Your task to perform on an android device: change notifications settings Image 0: 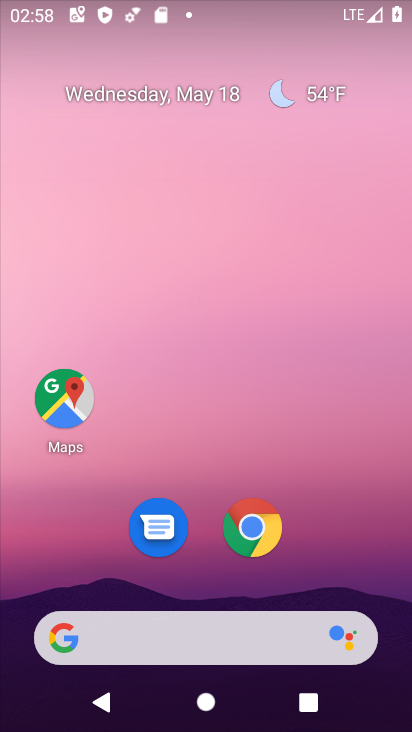
Step 0: drag from (206, 615) to (370, 59)
Your task to perform on an android device: change notifications settings Image 1: 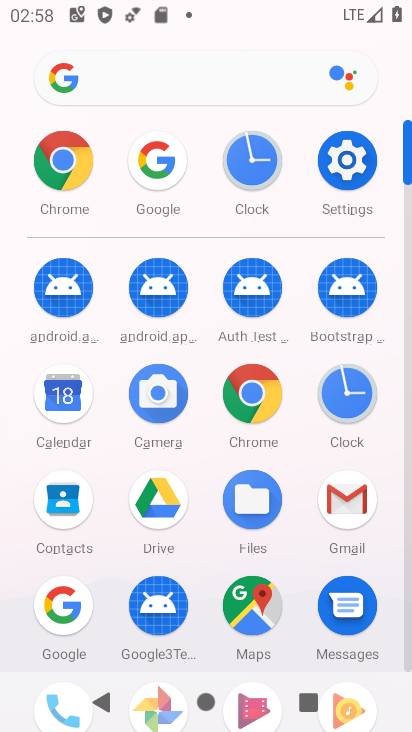
Step 1: click (338, 176)
Your task to perform on an android device: change notifications settings Image 2: 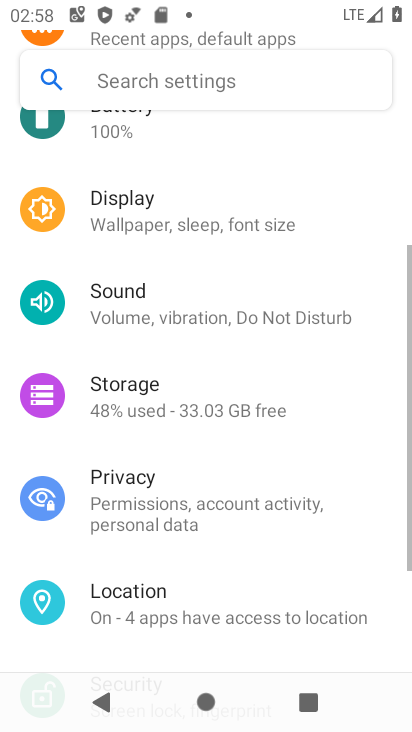
Step 2: drag from (319, 197) to (268, 654)
Your task to perform on an android device: change notifications settings Image 3: 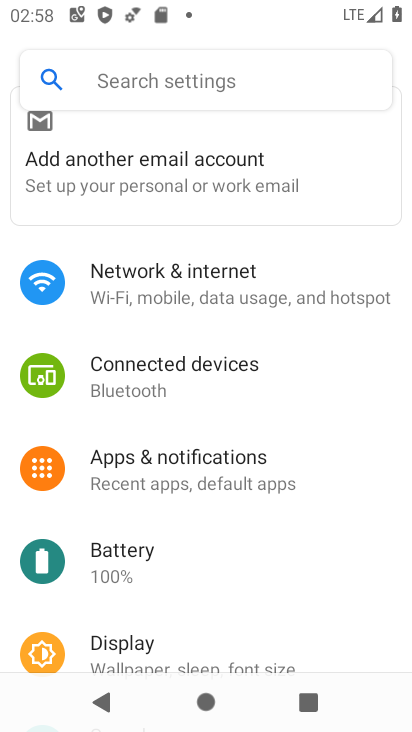
Step 3: click (232, 492)
Your task to perform on an android device: change notifications settings Image 4: 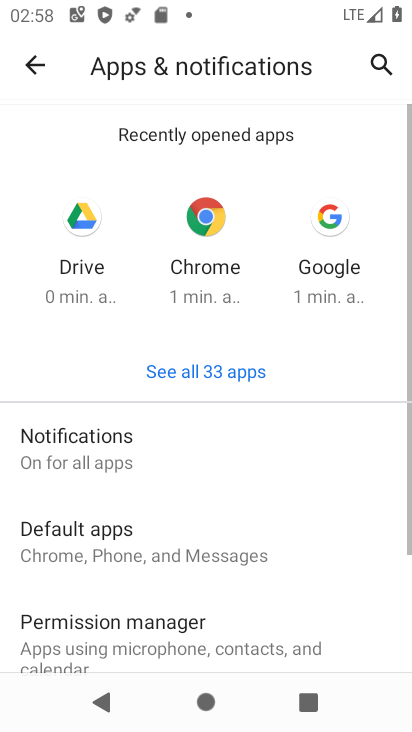
Step 4: click (156, 471)
Your task to perform on an android device: change notifications settings Image 5: 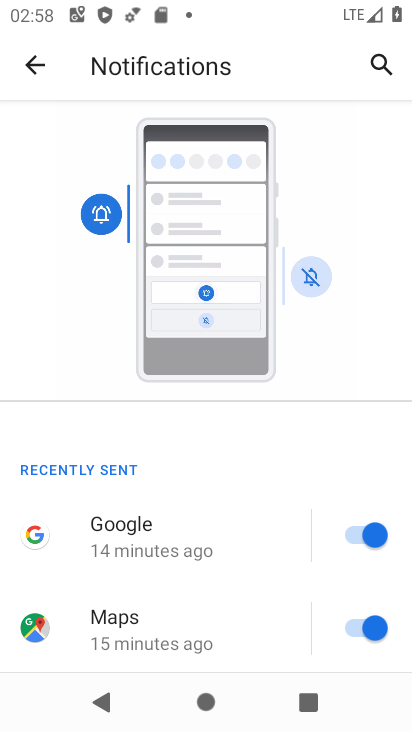
Step 5: task complete